Your task to perform on an android device: Go to Maps Image 0: 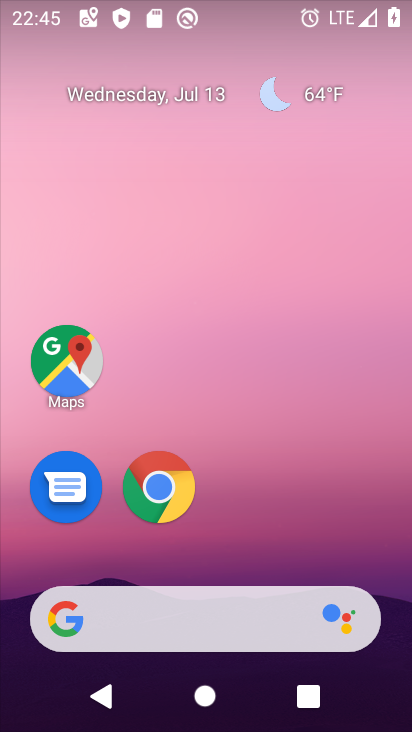
Step 0: click (38, 346)
Your task to perform on an android device: Go to Maps Image 1: 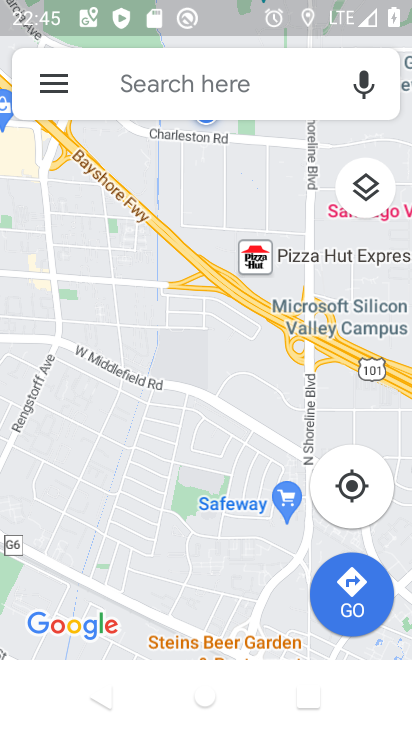
Step 1: task complete